Your task to perform on an android device: add a contact Image 0: 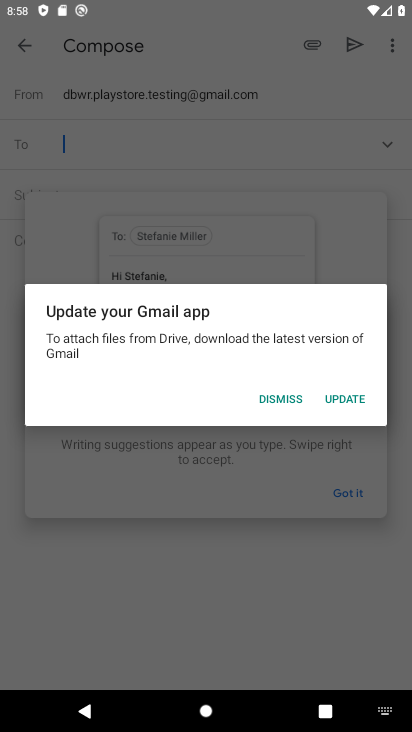
Step 0: press home button
Your task to perform on an android device: add a contact Image 1: 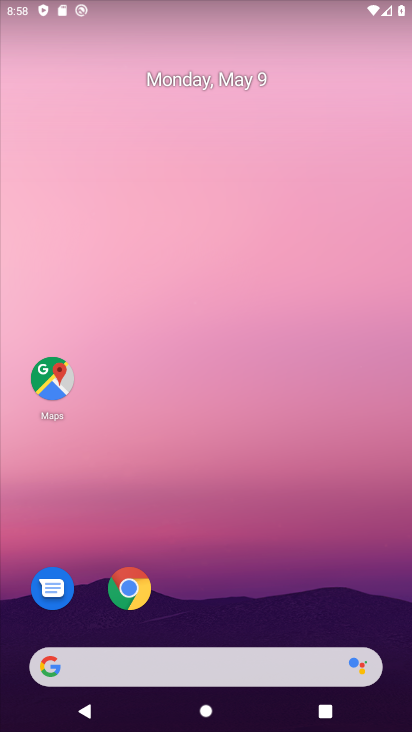
Step 1: drag from (263, 653) to (228, 128)
Your task to perform on an android device: add a contact Image 2: 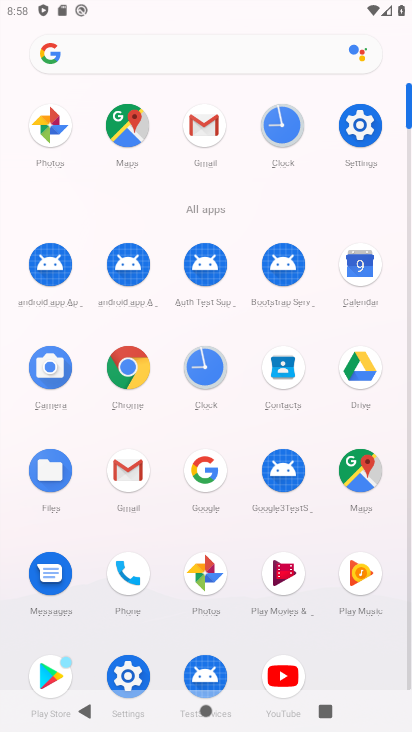
Step 2: click (281, 366)
Your task to perform on an android device: add a contact Image 3: 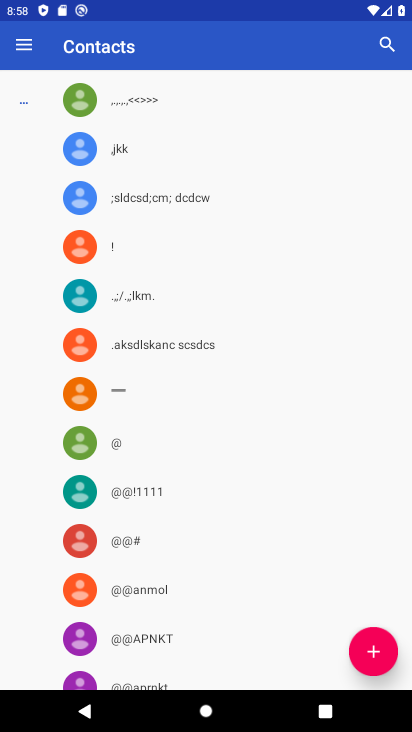
Step 3: click (381, 662)
Your task to perform on an android device: add a contact Image 4: 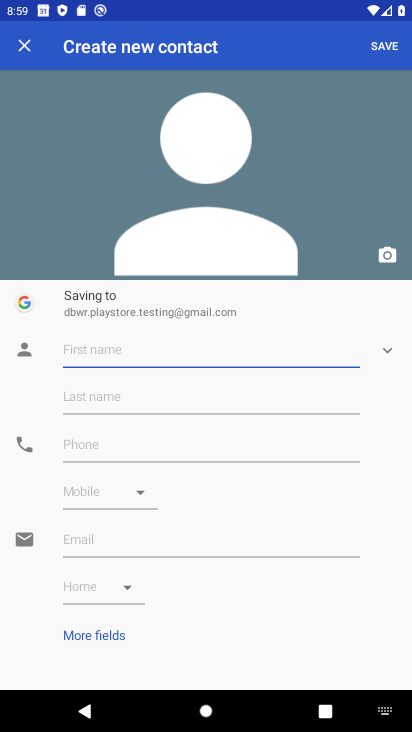
Step 4: type "fgfff"
Your task to perform on an android device: add a contact Image 5: 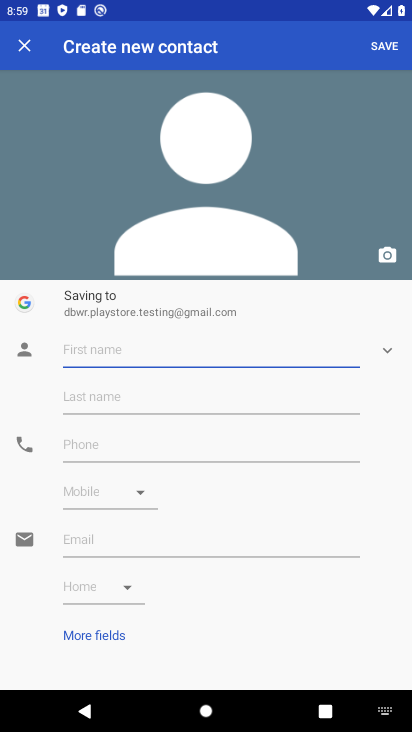
Step 5: click (139, 446)
Your task to perform on an android device: add a contact Image 6: 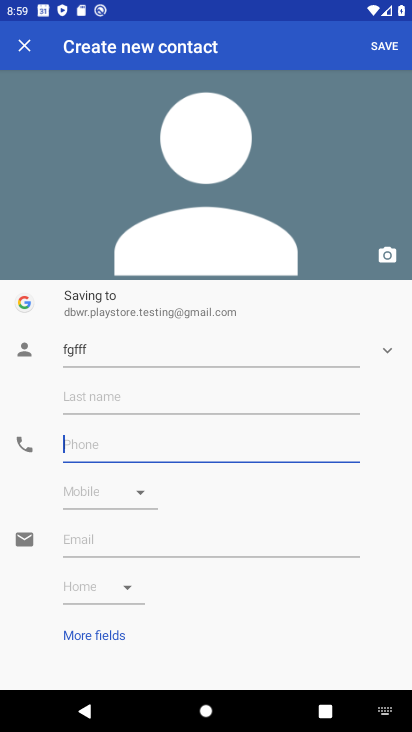
Step 6: type "8887778778"
Your task to perform on an android device: add a contact Image 7: 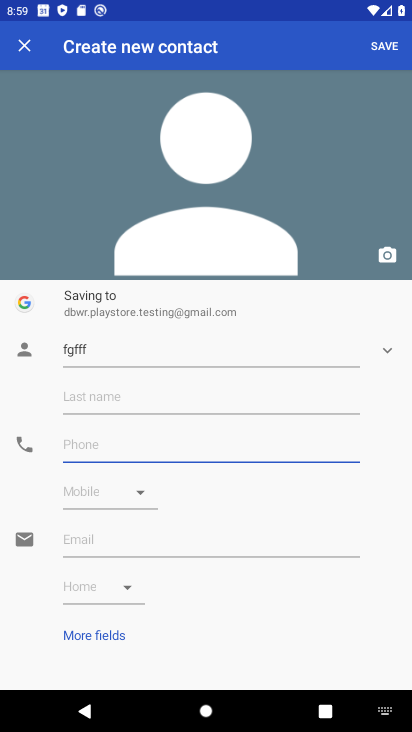
Step 7: click (377, 44)
Your task to perform on an android device: add a contact Image 8: 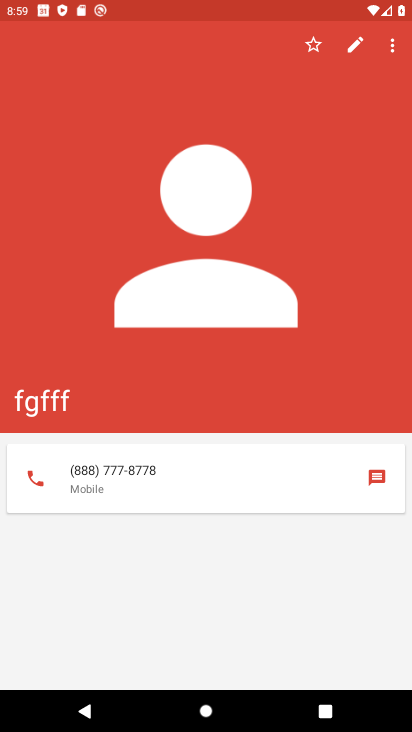
Step 8: task complete